Your task to perform on an android device: Is it going to rain this weekend? Image 0: 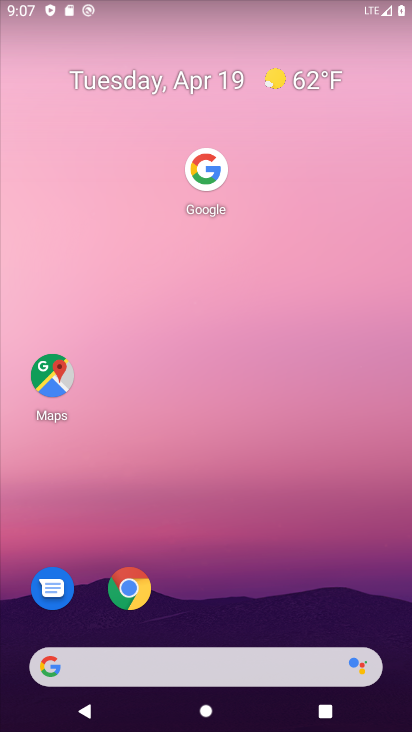
Step 0: click (289, 81)
Your task to perform on an android device: Is it going to rain this weekend? Image 1: 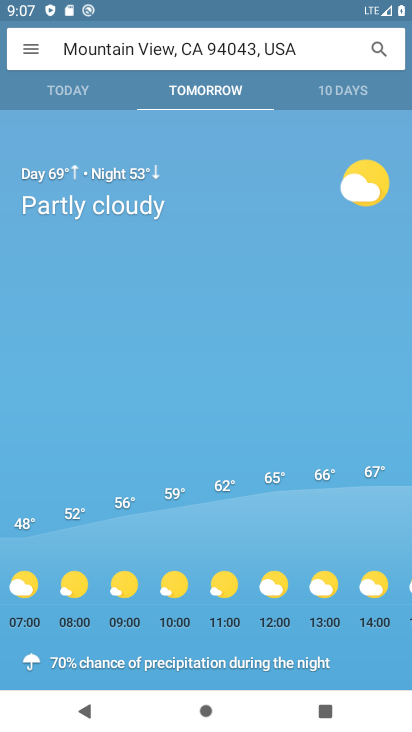
Step 1: click (340, 95)
Your task to perform on an android device: Is it going to rain this weekend? Image 2: 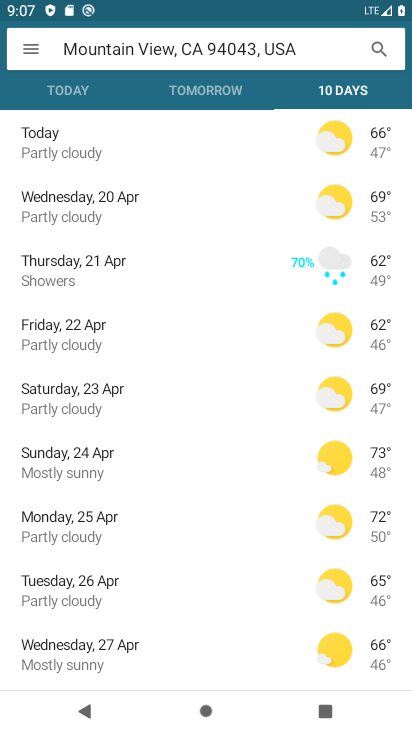
Step 2: task complete